Your task to perform on an android device: Show the shopping cart on target.com. Search for dell xps on target.com, select the first entry, add it to the cart, then select checkout. Image 0: 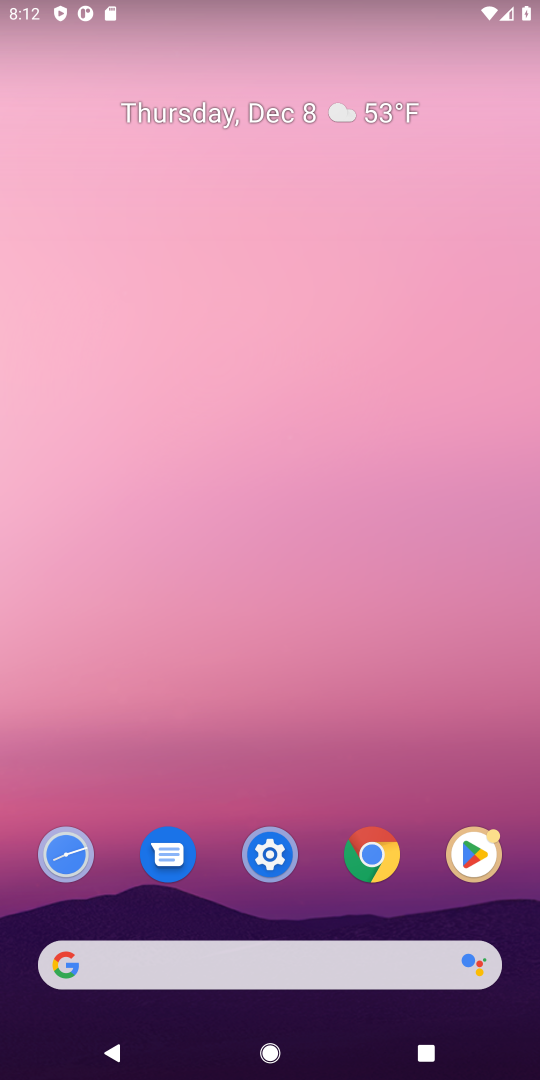
Step 0: press home button
Your task to perform on an android device: Show the shopping cart on target.com. Search for dell xps on target.com, select the first entry, add it to the cart, then select checkout. Image 1: 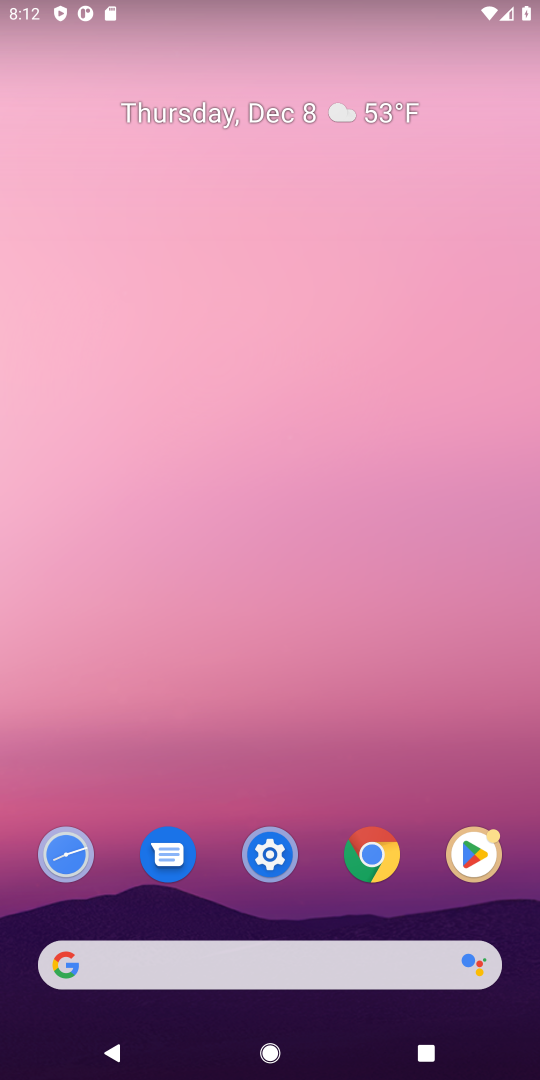
Step 1: click (116, 966)
Your task to perform on an android device: Show the shopping cart on target.com. Search for dell xps on target.com, select the first entry, add it to the cart, then select checkout. Image 2: 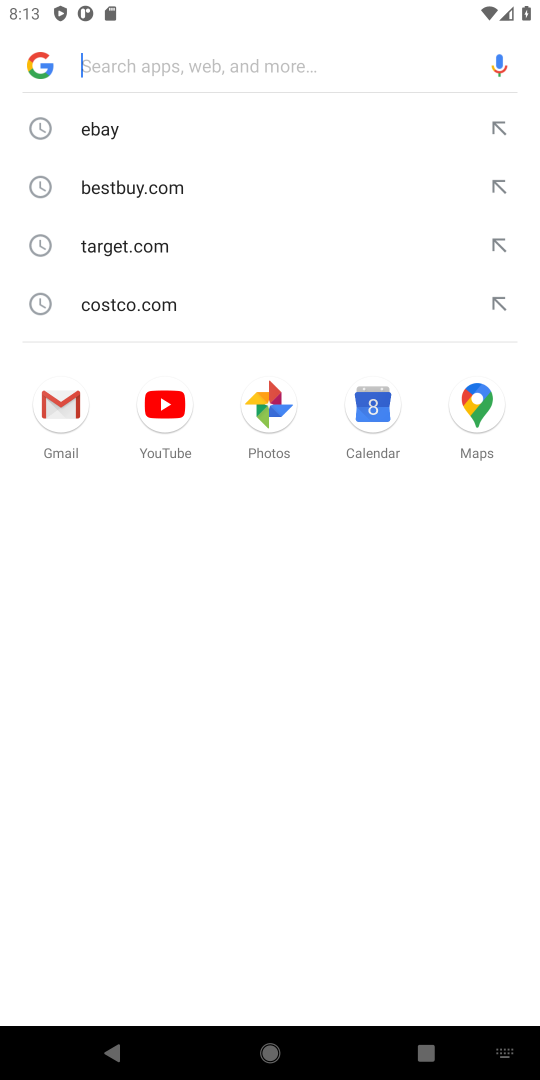
Step 2: type "target.com"
Your task to perform on an android device: Show the shopping cart on target.com. Search for dell xps on target.com, select the first entry, add it to the cart, then select checkout. Image 3: 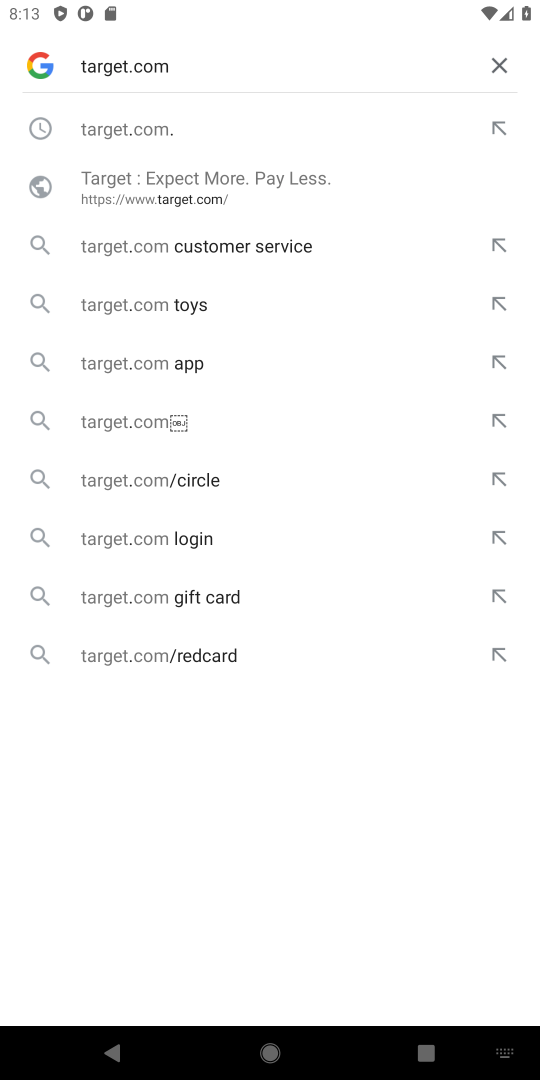
Step 3: press enter
Your task to perform on an android device: Show the shopping cart on target.com. Search for dell xps on target.com, select the first entry, add it to the cart, then select checkout. Image 4: 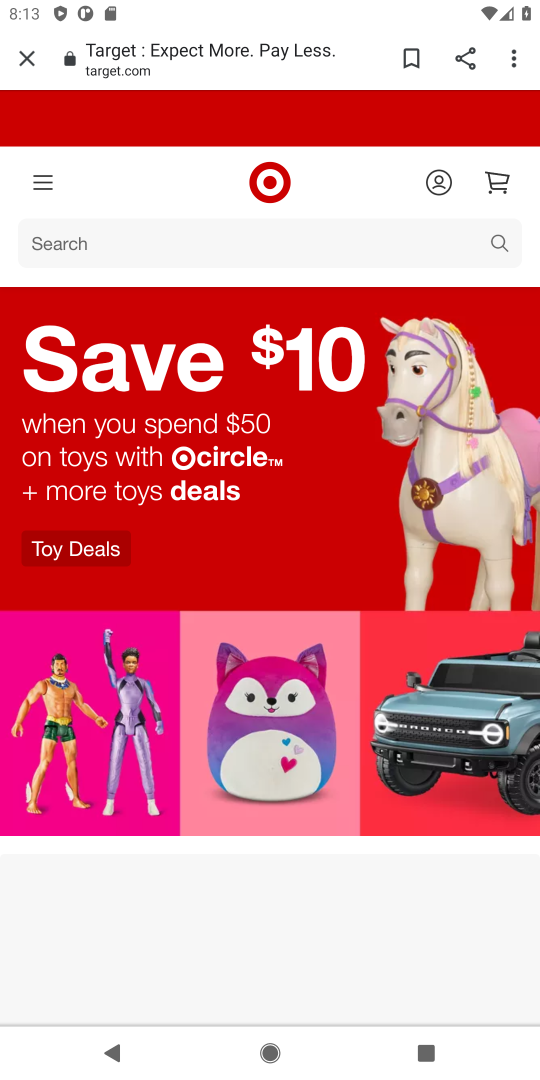
Step 4: click (501, 178)
Your task to perform on an android device: Show the shopping cart on target.com. Search for dell xps on target.com, select the first entry, add it to the cart, then select checkout. Image 5: 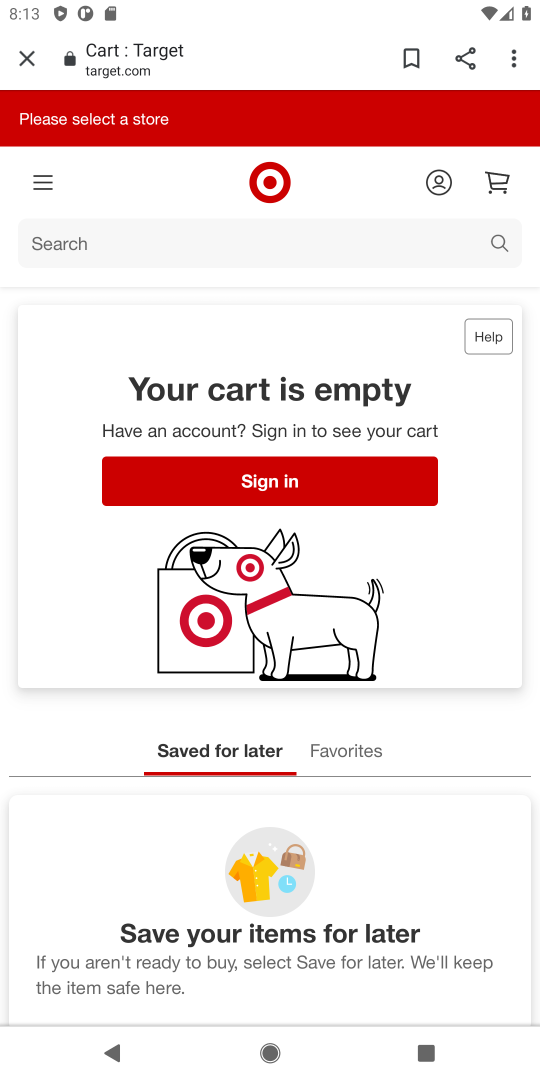
Step 5: click (72, 241)
Your task to perform on an android device: Show the shopping cart on target.com. Search for dell xps on target.com, select the first entry, add it to the cart, then select checkout. Image 6: 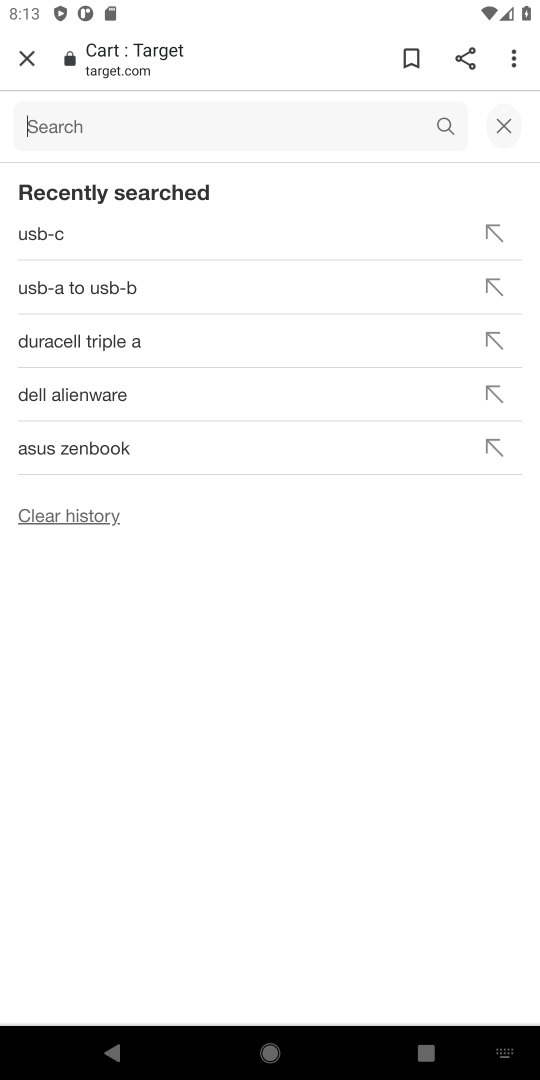
Step 6: type "dell xps"
Your task to perform on an android device: Show the shopping cart on target.com. Search for dell xps on target.com, select the first entry, add it to the cart, then select checkout. Image 7: 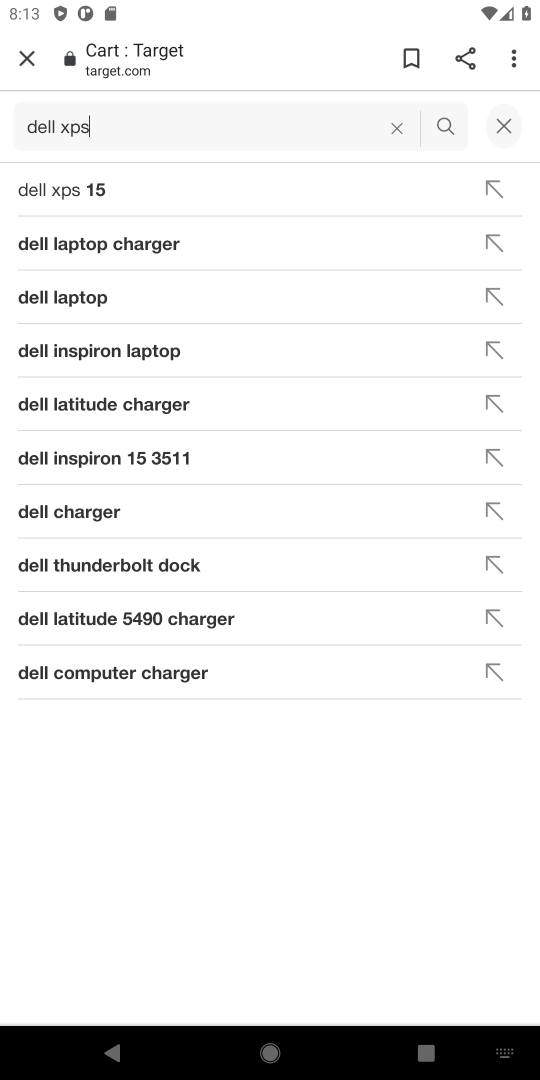
Step 7: press enter
Your task to perform on an android device: Show the shopping cart on target.com. Search for dell xps on target.com, select the first entry, add it to the cart, then select checkout. Image 8: 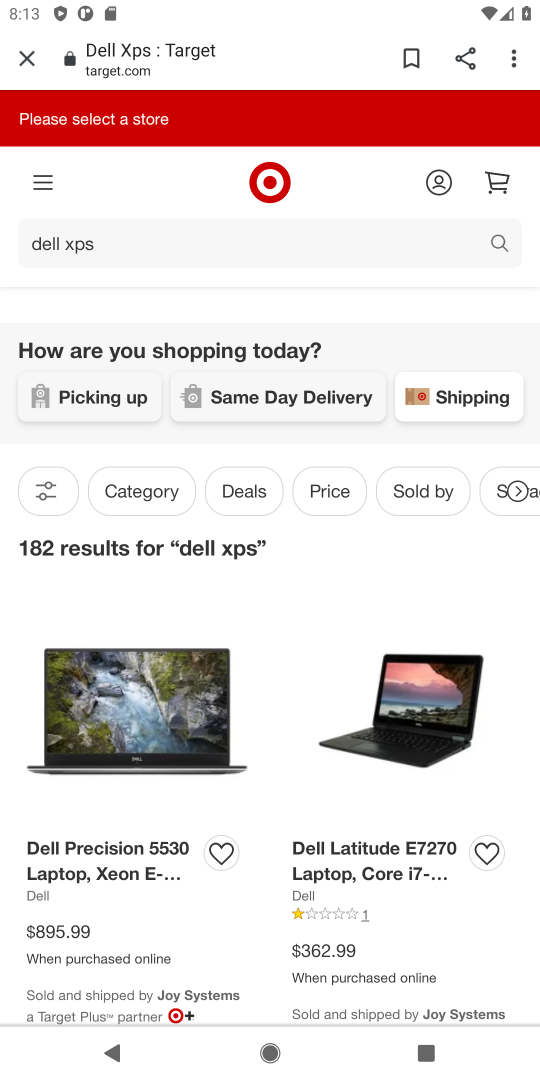
Step 8: task complete